Your task to perform on an android device: turn on wifi Image 0: 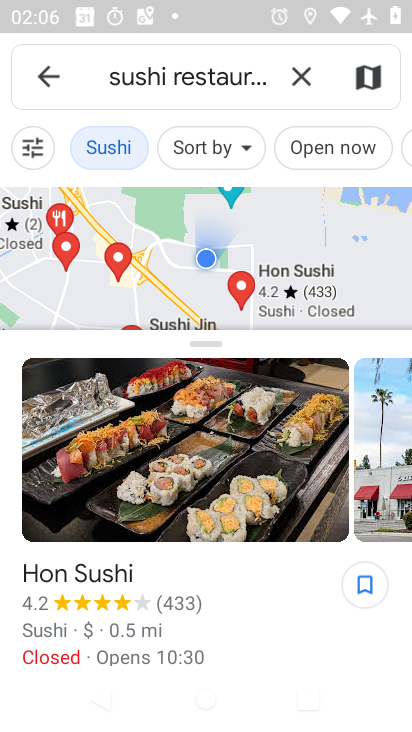
Step 0: press home button
Your task to perform on an android device: turn on wifi Image 1: 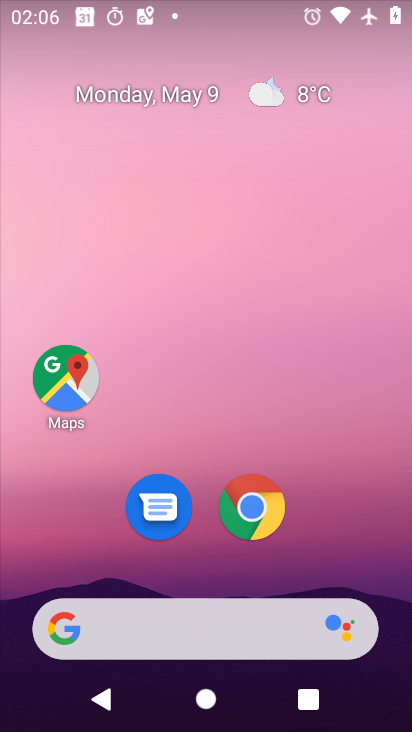
Step 1: drag from (219, 728) to (200, 348)
Your task to perform on an android device: turn on wifi Image 2: 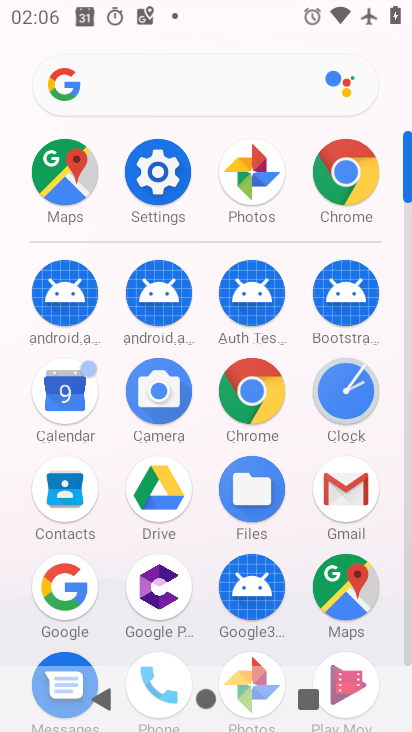
Step 2: click (152, 185)
Your task to perform on an android device: turn on wifi Image 3: 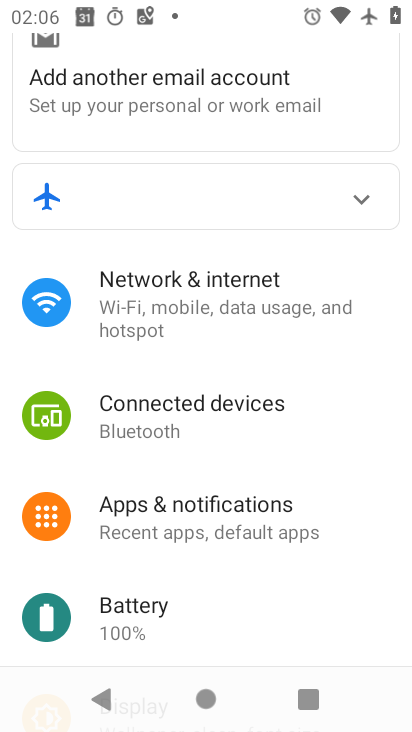
Step 3: click (167, 301)
Your task to perform on an android device: turn on wifi Image 4: 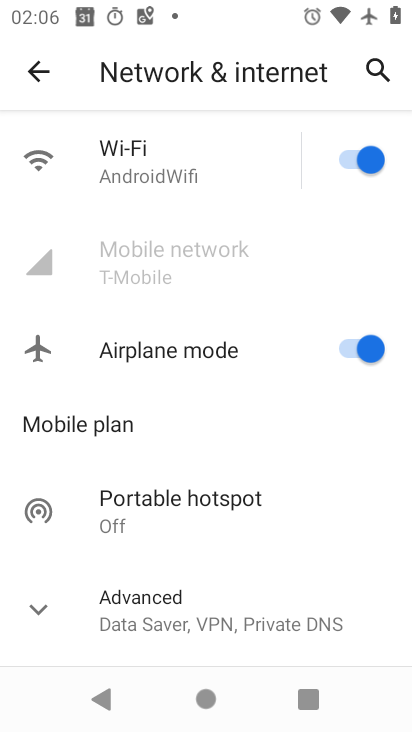
Step 4: task complete